Your task to perform on an android device: Open Maps and search for coffee Image 0: 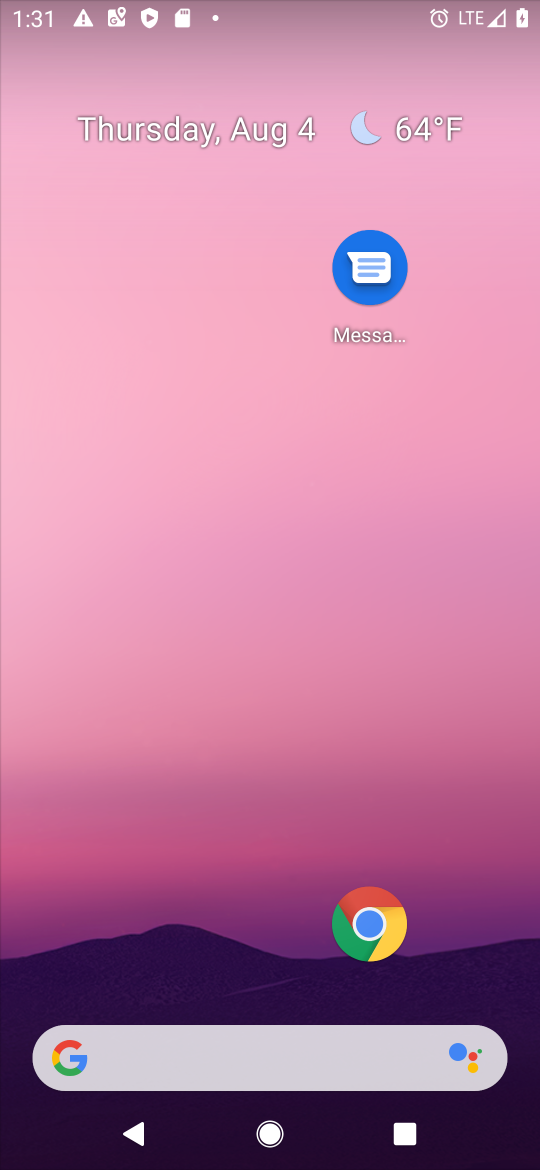
Step 0: drag from (103, 993) to (330, 252)
Your task to perform on an android device: Open Maps and search for coffee Image 1: 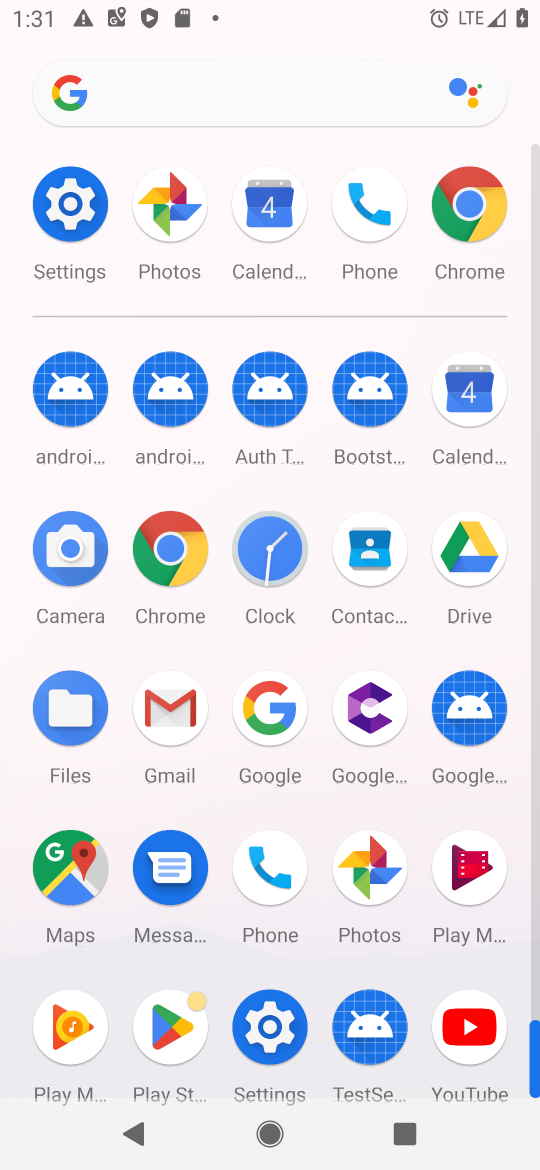
Step 1: click (260, 350)
Your task to perform on an android device: Open Maps and search for coffee Image 2: 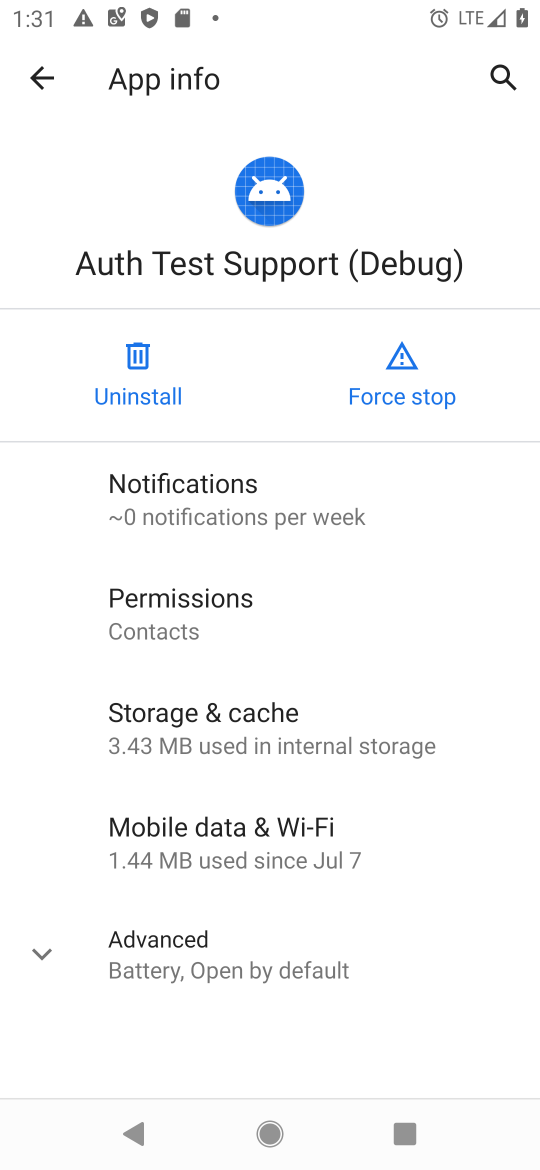
Step 2: press home button
Your task to perform on an android device: Open Maps and search for coffee Image 3: 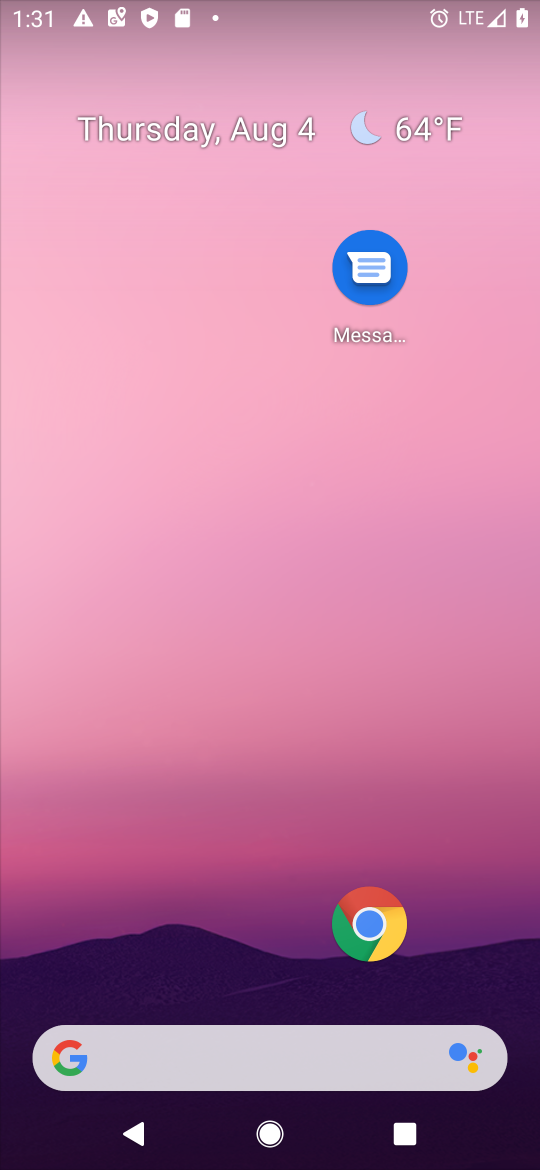
Step 3: drag from (26, 1133) to (490, 230)
Your task to perform on an android device: Open Maps and search for coffee Image 4: 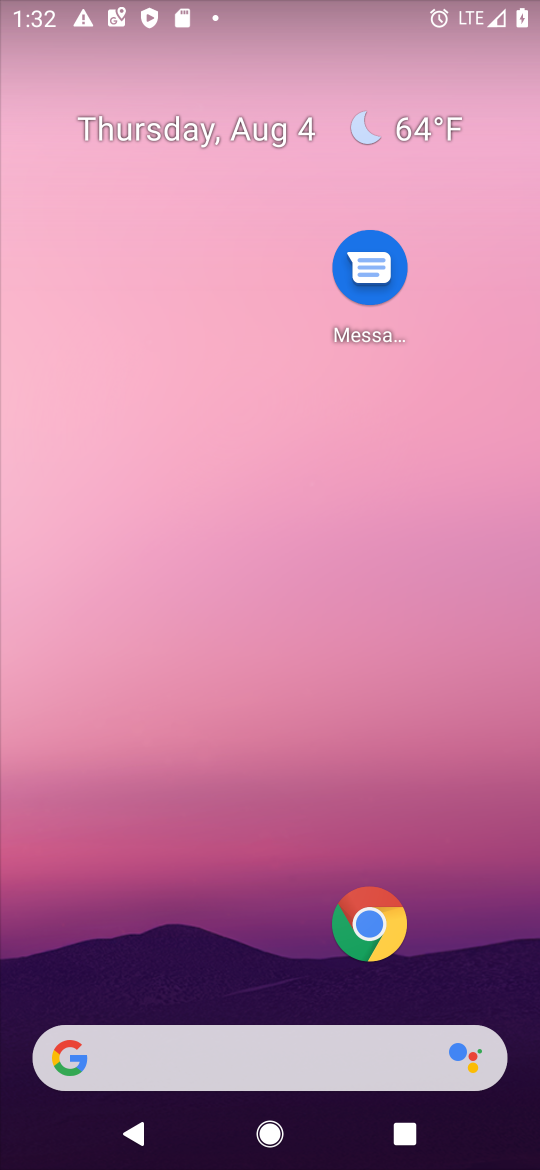
Step 4: click (118, 35)
Your task to perform on an android device: Open Maps and search for coffee Image 5: 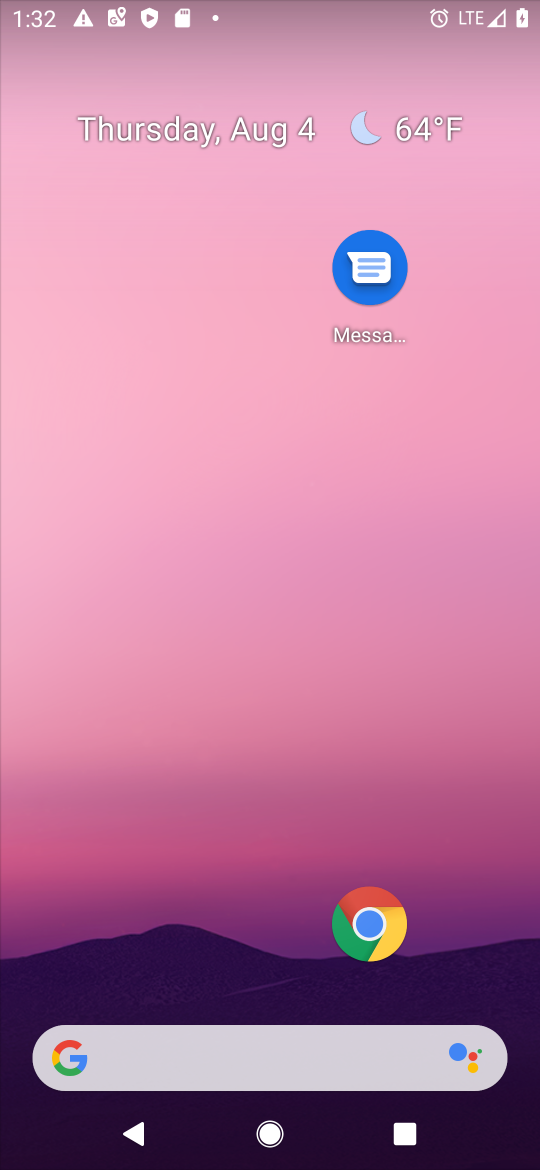
Step 5: drag from (60, 1132) to (288, 191)
Your task to perform on an android device: Open Maps and search for coffee Image 6: 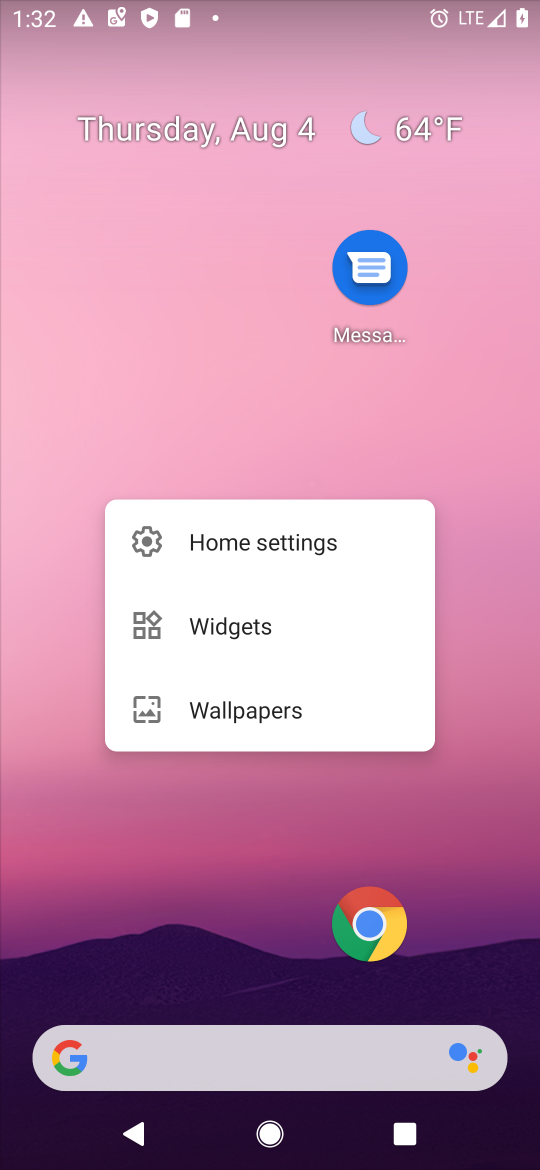
Step 6: drag from (34, 1112) to (109, 19)
Your task to perform on an android device: Open Maps and search for coffee Image 7: 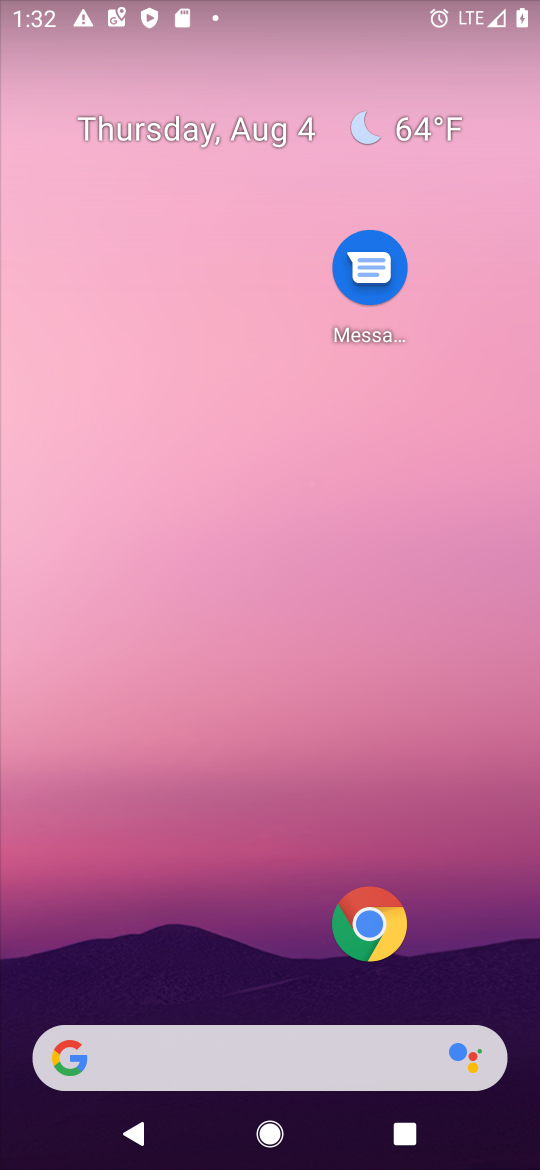
Step 7: drag from (52, 1123) to (148, 21)
Your task to perform on an android device: Open Maps and search for coffee Image 8: 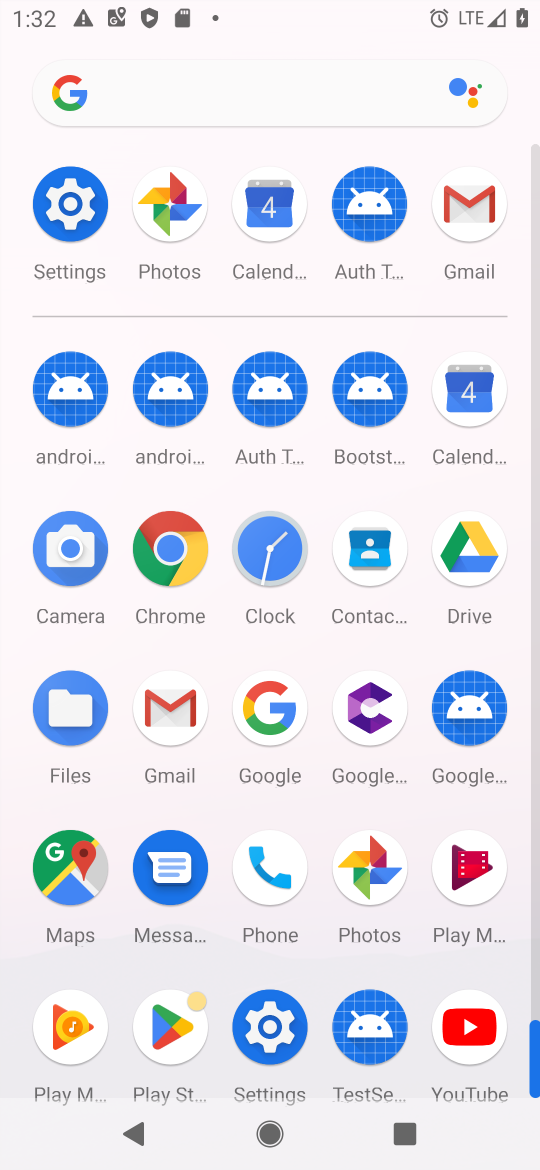
Step 8: click (76, 861)
Your task to perform on an android device: Open Maps and search for coffee Image 9: 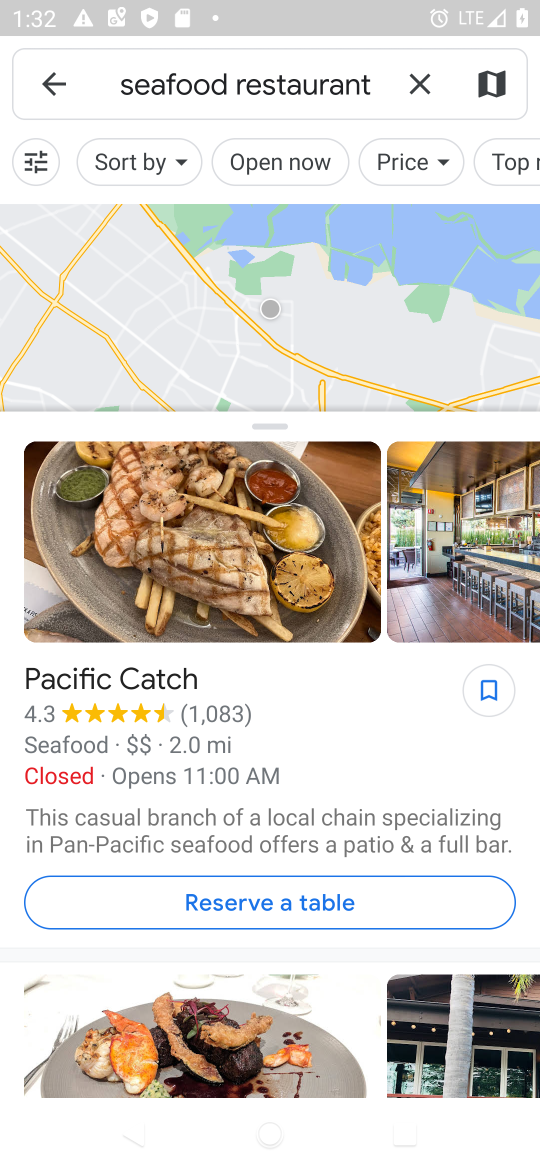
Step 9: click (60, 86)
Your task to perform on an android device: Open Maps and search for coffee Image 10: 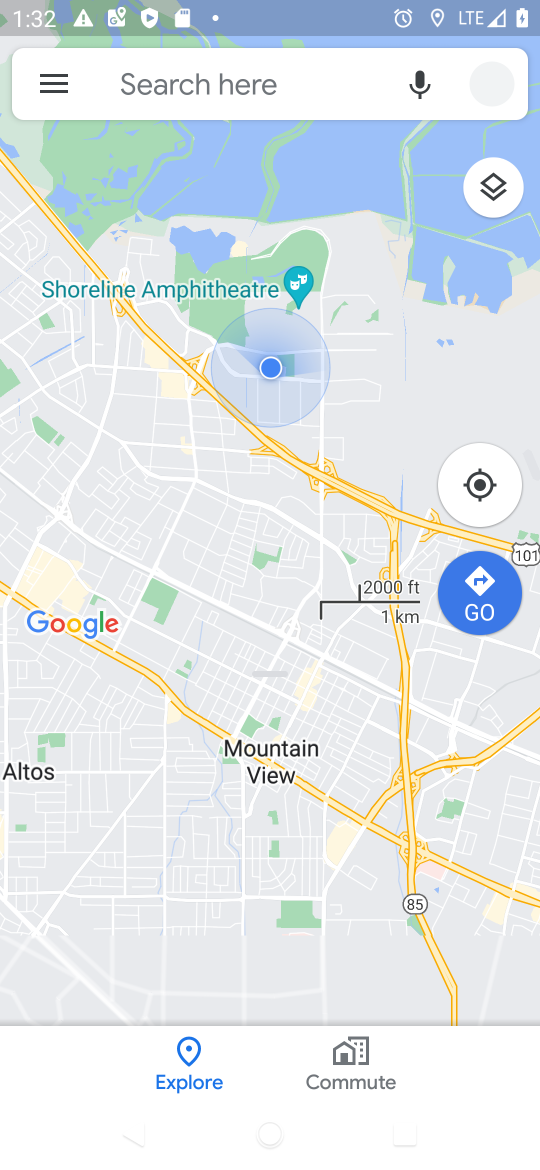
Step 10: click (135, 86)
Your task to perform on an android device: Open Maps and search for coffee Image 11: 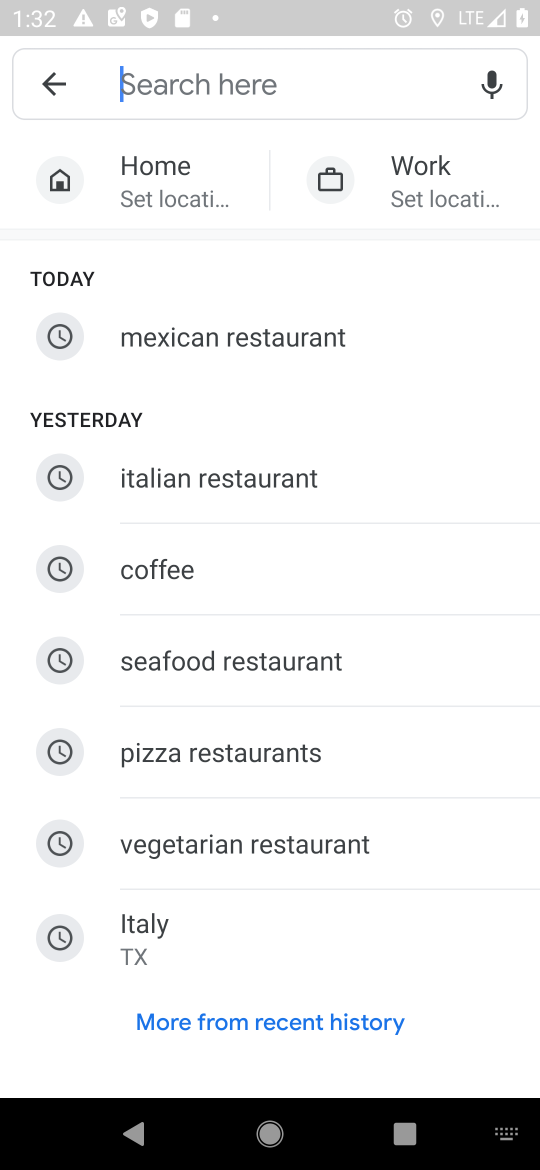
Step 11: click (140, 565)
Your task to perform on an android device: Open Maps and search for coffee Image 12: 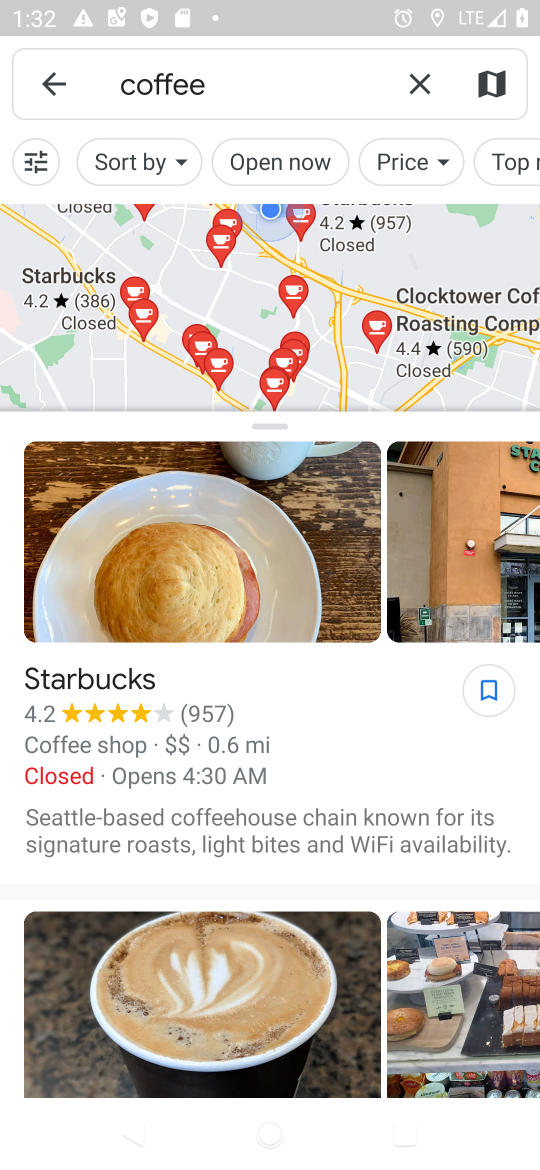
Step 12: task complete